Your task to perform on an android device: delete location history Image 0: 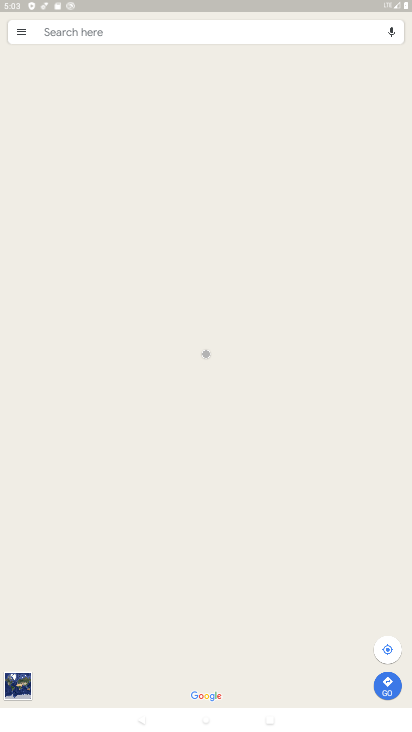
Step 0: click (23, 36)
Your task to perform on an android device: delete location history Image 1: 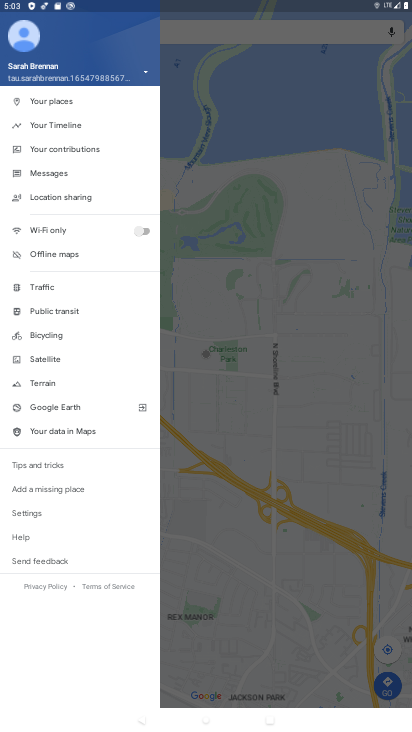
Step 1: click (66, 128)
Your task to perform on an android device: delete location history Image 2: 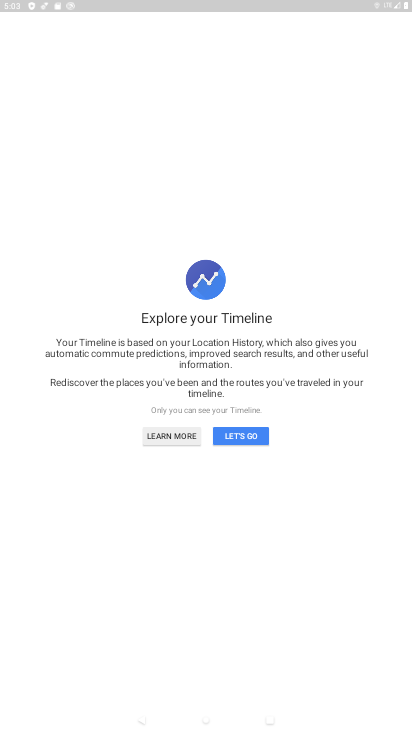
Step 2: click (251, 435)
Your task to perform on an android device: delete location history Image 3: 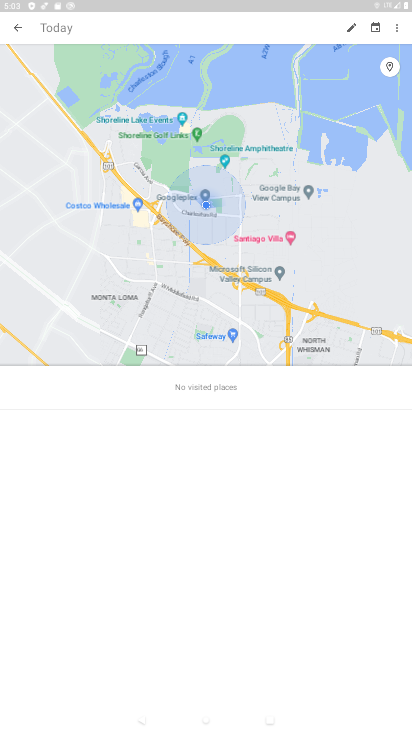
Step 3: click (397, 28)
Your task to perform on an android device: delete location history Image 4: 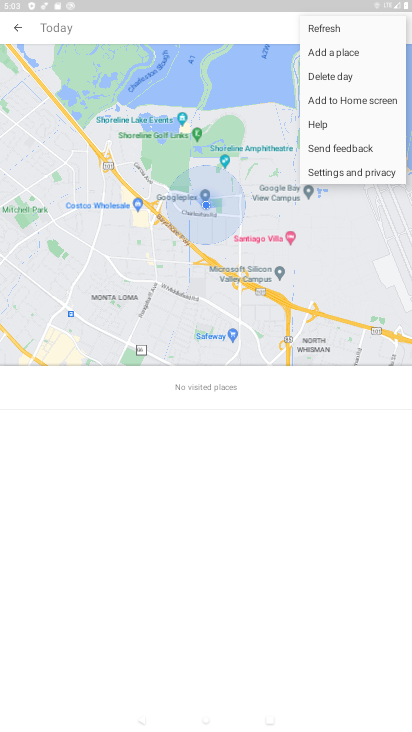
Step 4: click (325, 175)
Your task to perform on an android device: delete location history Image 5: 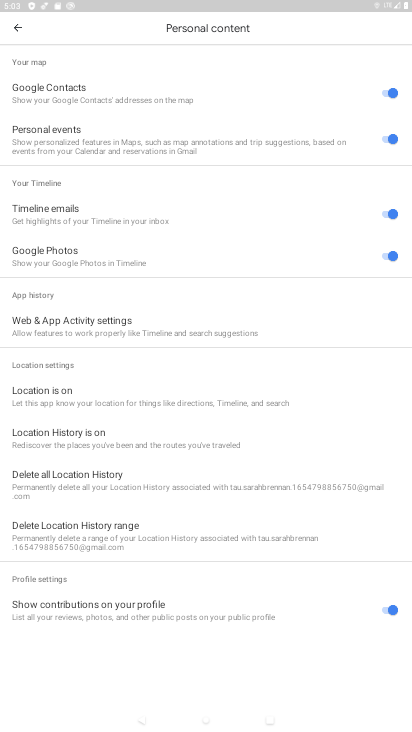
Step 5: click (88, 471)
Your task to perform on an android device: delete location history Image 6: 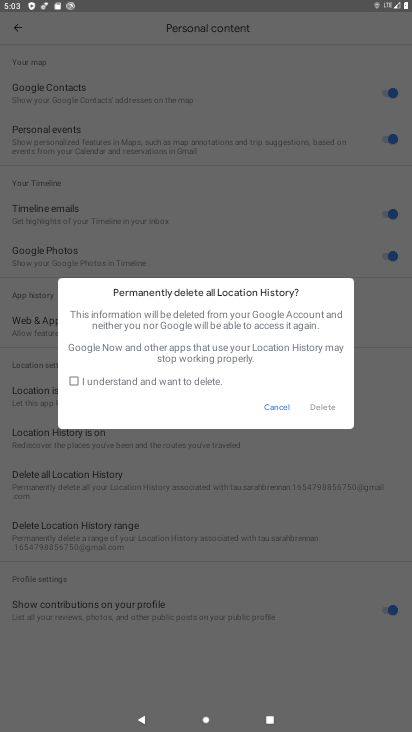
Step 6: click (107, 390)
Your task to perform on an android device: delete location history Image 7: 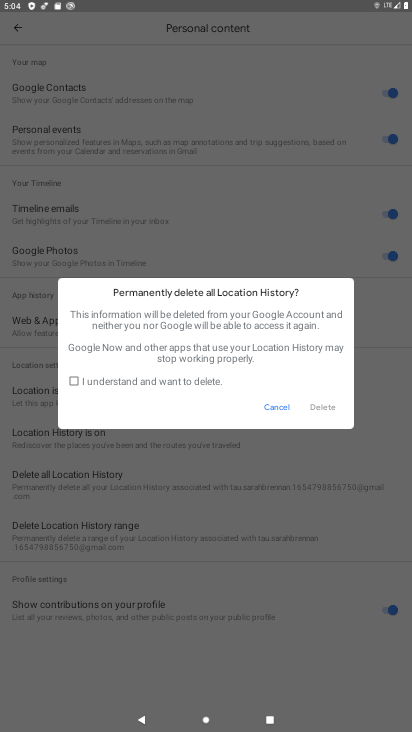
Step 7: click (71, 380)
Your task to perform on an android device: delete location history Image 8: 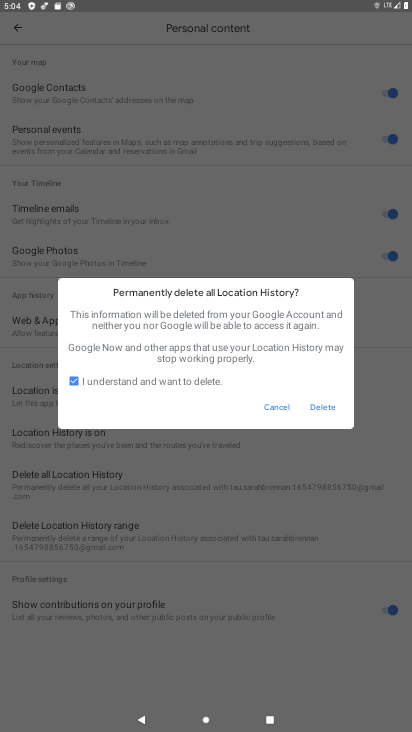
Step 8: click (319, 402)
Your task to perform on an android device: delete location history Image 9: 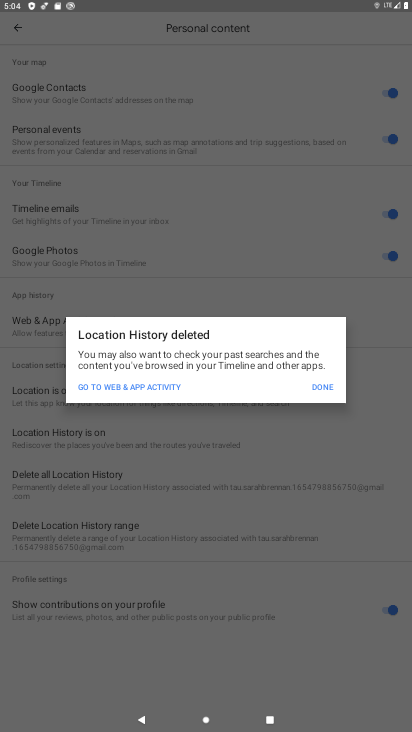
Step 9: click (318, 386)
Your task to perform on an android device: delete location history Image 10: 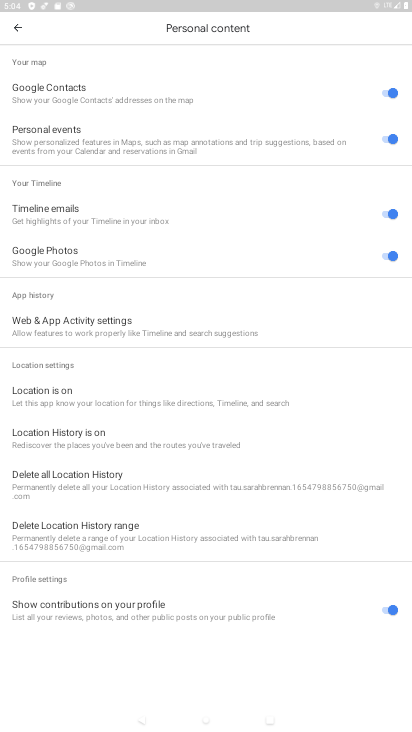
Step 10: task complete